Your task to perform on an android device: What's the weather? Image 0: 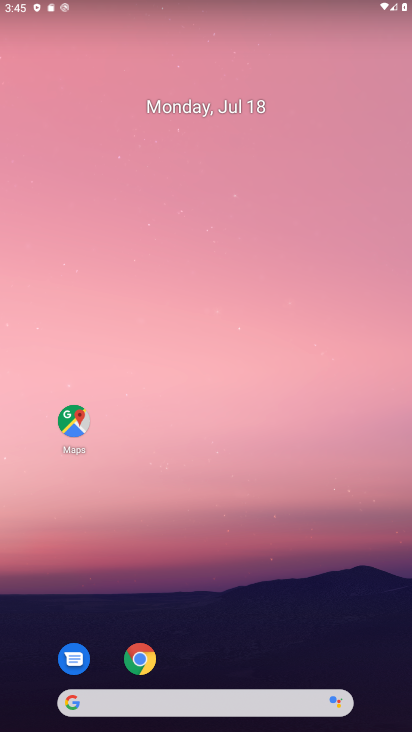
Step 0: drag from (101, 689) to (226, 27)
Your task to perform on an android device: What's the weather? Image 1: 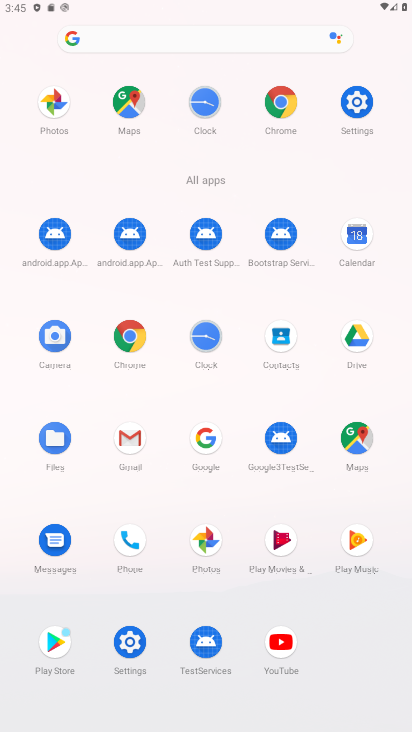
Step 1: click (115, 332)
Your task to perform on an android device: What's the weather? Image 2: 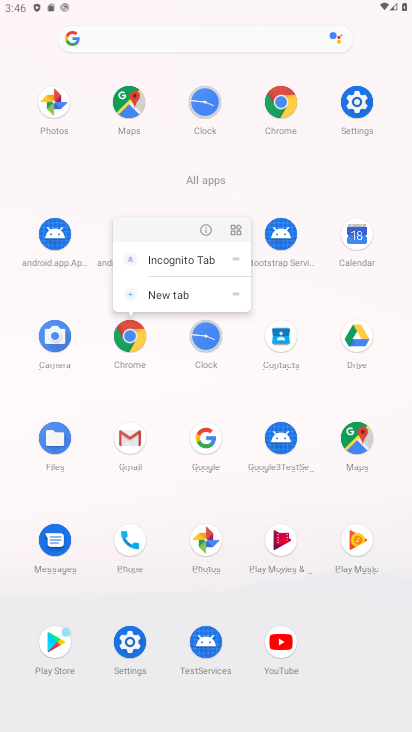
Step 2: click (135, 331)
Your task to perform on an android device: What's the weather? Image 3: 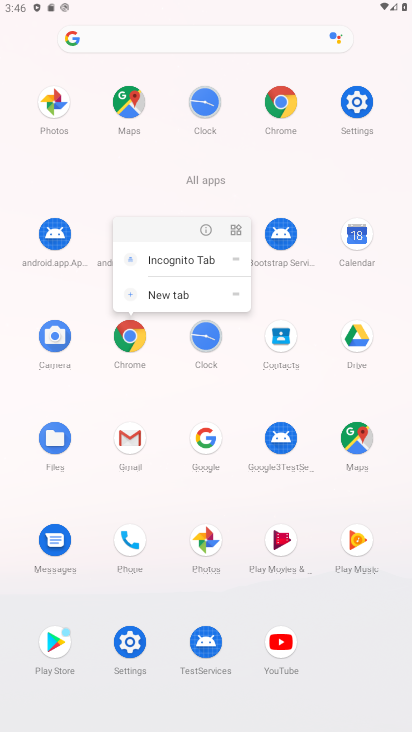
Step 3: click (116, 341)
Your task to perform on an android device: What's the weather? Image 4: 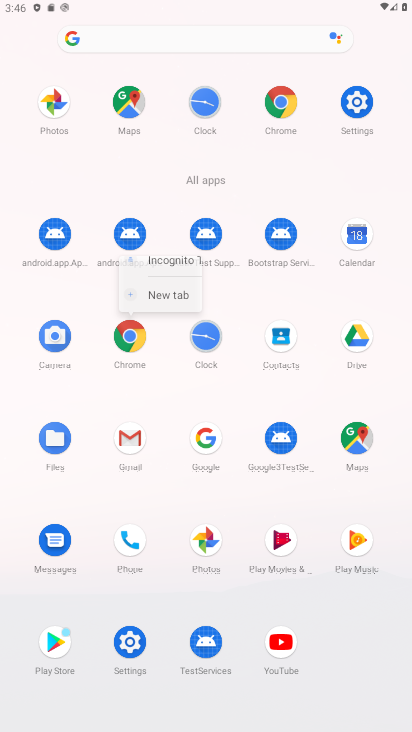
Step 4: click (116, 341)
Your task to perform on an android device: What's the weather? Image 5: 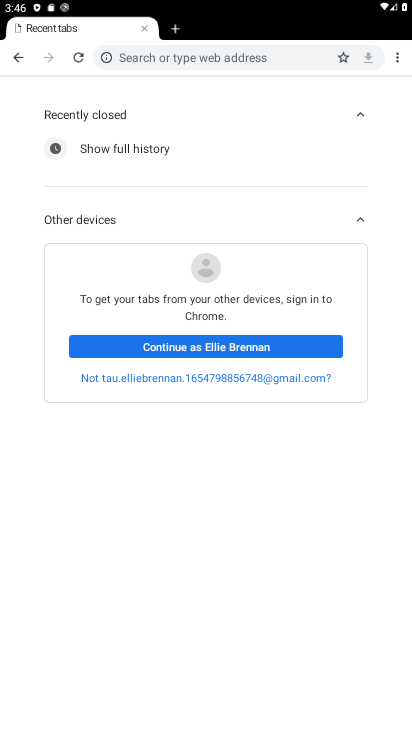
Step 5: click (169, 65)
Your task to perform on an android device: What's the weather? Image 6: 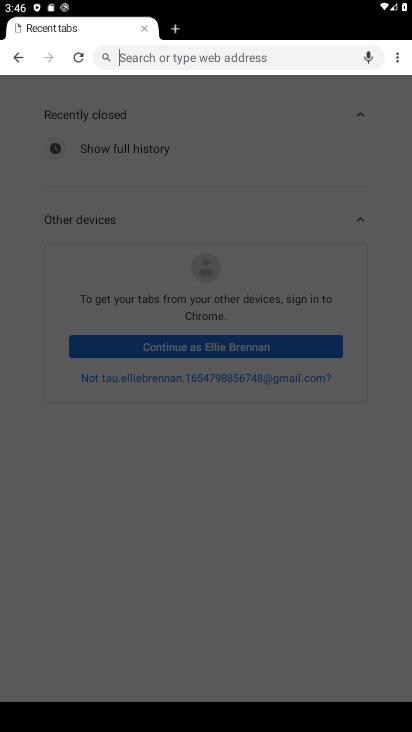
Step 6: type "whats the weather"
Your task to perform on an android device: What's the weather? Image 7: 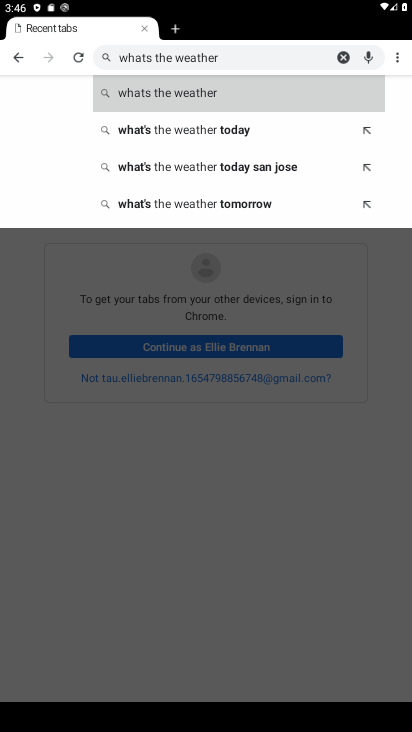
Step 7: click (311, 103)
Your task to perform on an android device: What's the weather? Image 8: 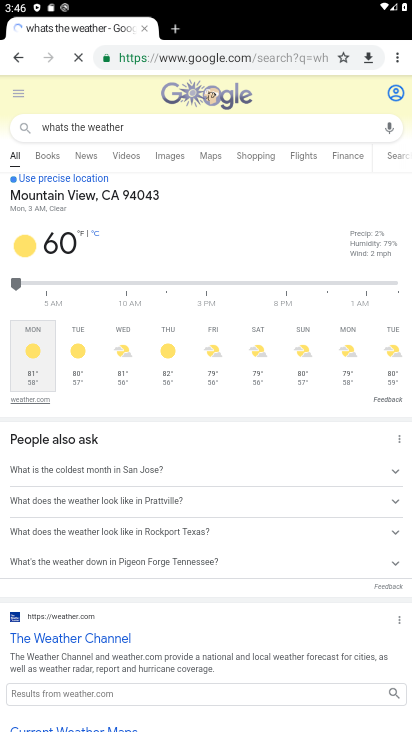
Step 8: task complete